Your task to perform on an android device: see sites visited before in the chrome app Image 0: 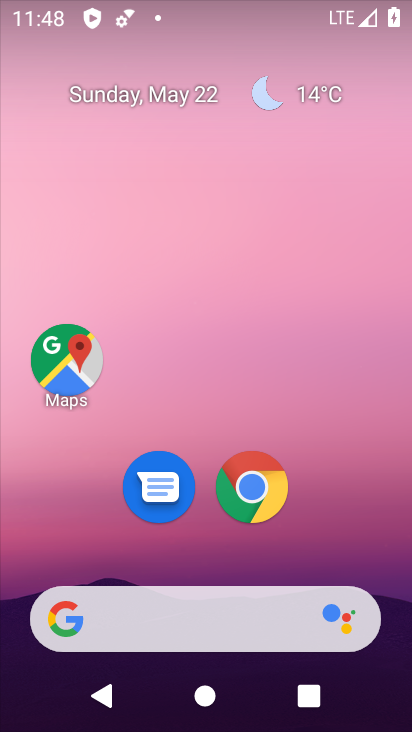
Step 0: click (251, 489)
Your task to perform on an android device: see sites visited before in the chrome app Image 1: 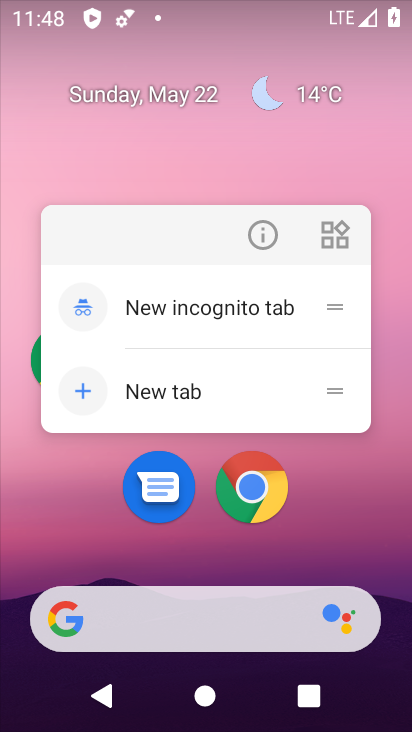
Step 1: click (255, 496)
Your task to perform on an android device: see sites visited before in the chrome app Image 2: 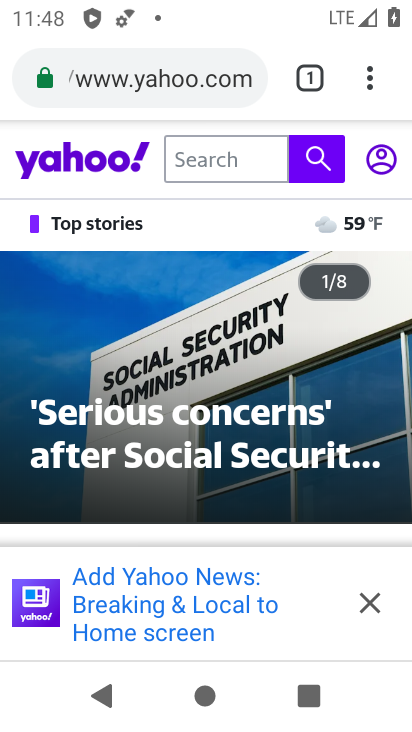
Step 2: drag from (379, 73) to (127, 385)
Your task to perform on an android device: see sites visited before in the chrome app Image 3: 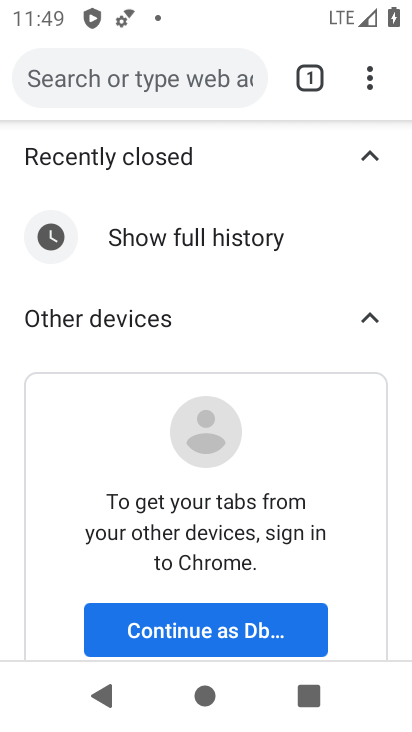
Step 3: click (293, 625)
Your task to perform on an android device: see sites visited before in the chrome app Image 4: 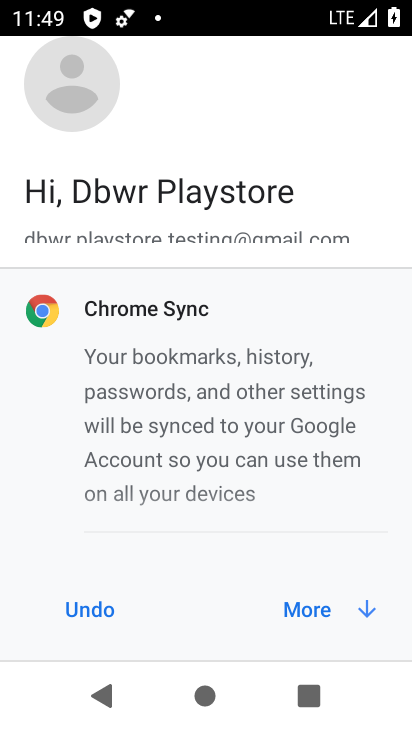
Step 4: click (294, 626)
Your task to perform on an android device: see sites visited before in the chrome app Image 5: 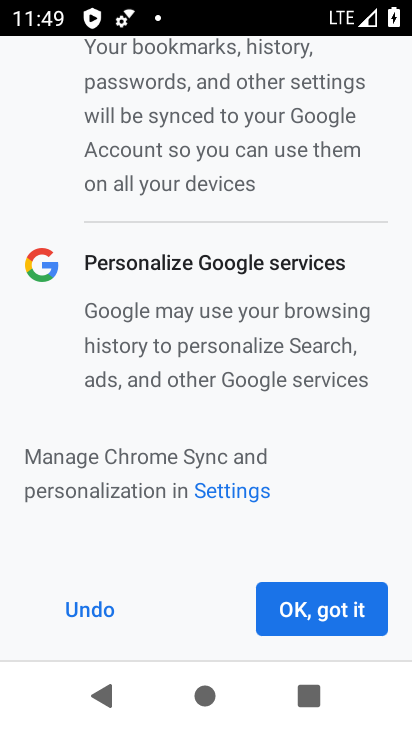
Step 5: click (294, 626)
Your task to perform on an android device: see sites visited before in the chrome app Image 6: 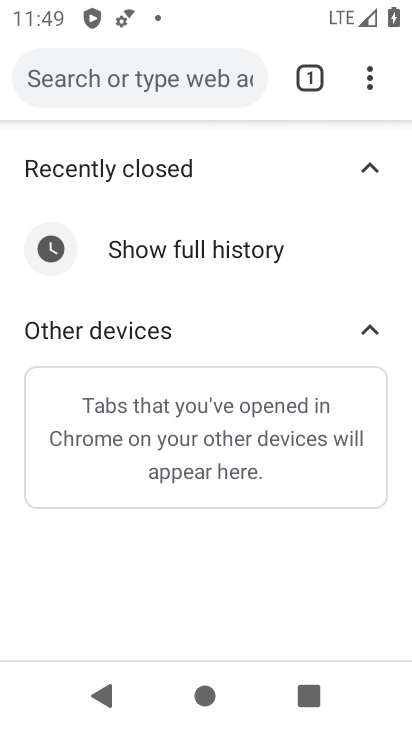
Step 6: task complete